Your task to perform on an android device: Open Chrome and go to settings Image 0: 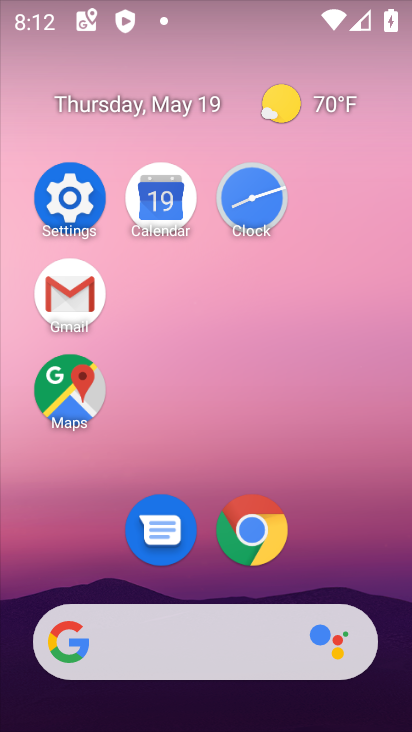
Step 0: click (269, 540)
Your task to perform on an android device: Open Chrome and go to settings Image 1: 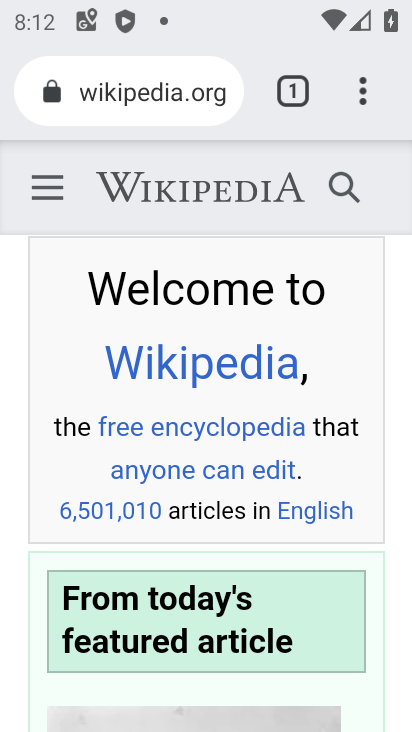
Step 1: click (378, 80)
Your task to perform on an android device: Open Chrome and go to settings Image 2: 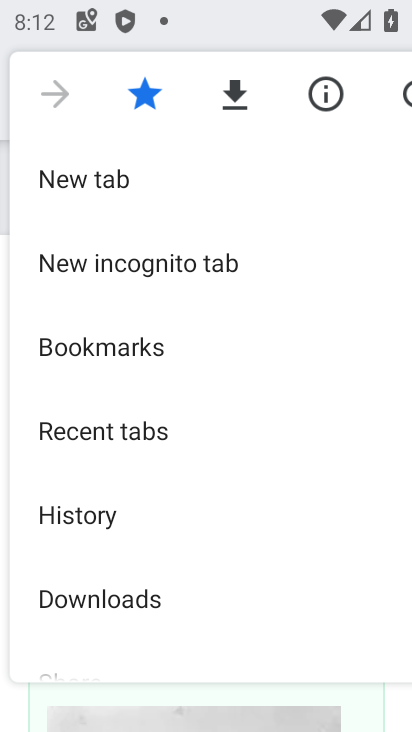
Step 2: drag from (232, 557) to (228, 172)
Your task to perform on an android device: Open Chrome and go to settings Image 3: 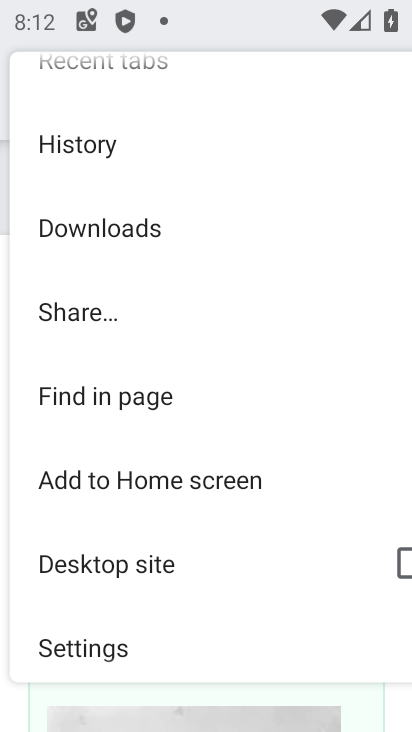
Step 3: click (110, 636)
Your task to perform on an android device: Open Chrome and go to settings Image 4: 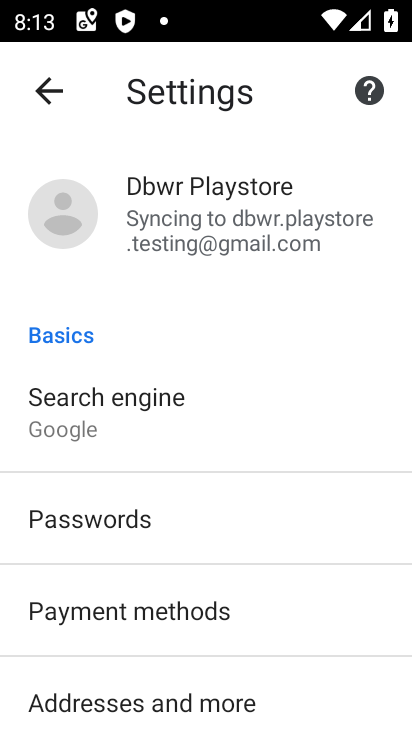
Step 4: task complete